Your task to perform on an android device: Search for 3d printed chess sets on Etsy. Image 0: 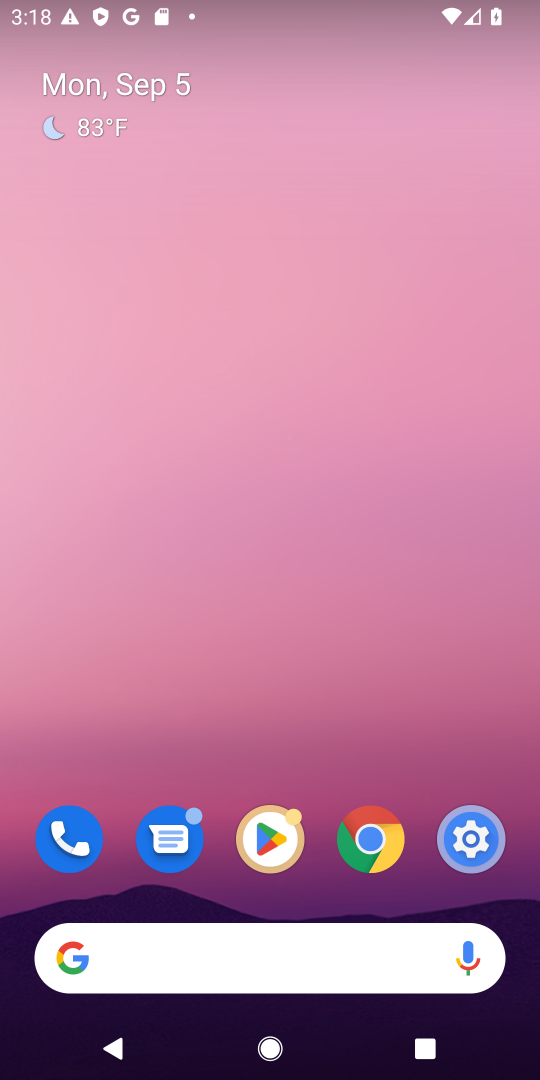
Step 0: click (187, 950)
Your task to perform on an android device: Search for 3d printed chess sets on Etsy. Image 1: 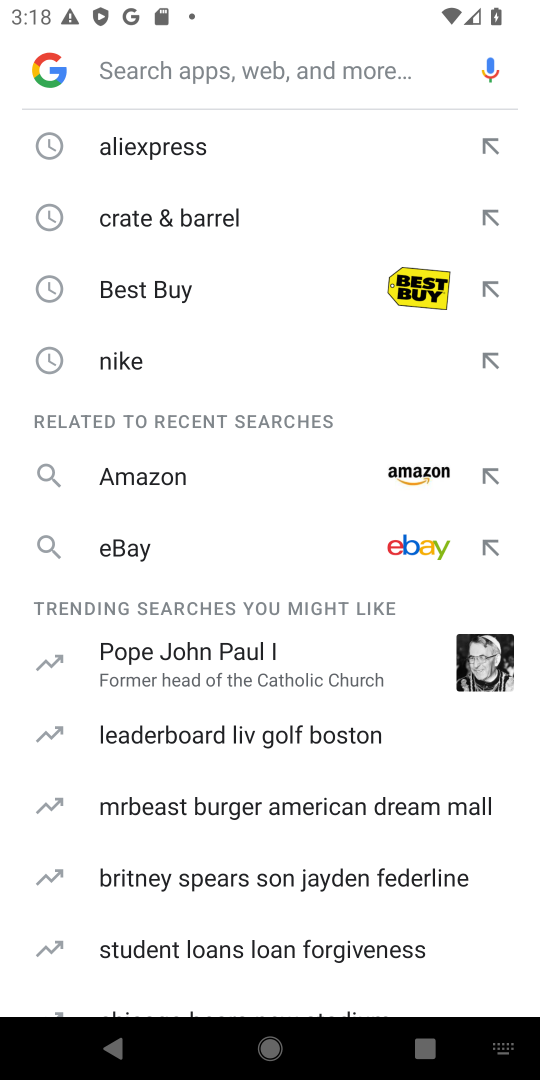
Step 1: type "etsy"
Your task to perform on an android device: Search for 3d printed chess sets on Etsy. Image 2: 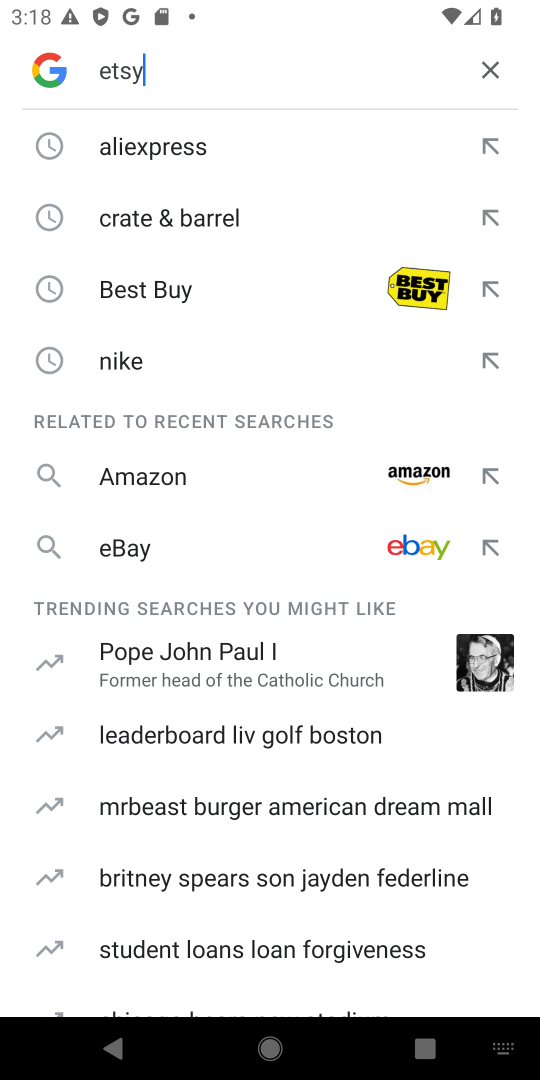
Step 2: type ""
Your task to perform on an android device: Search for 3d printed chess sets on Etsy. Image 3: 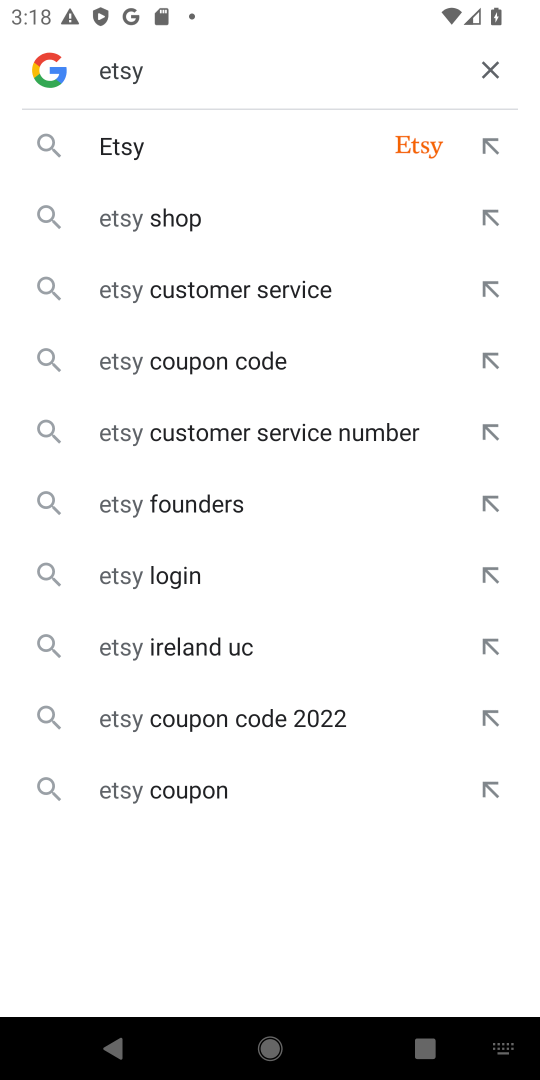
Step 3: press enter
Your task to perform on an android device: Search for 3d printed chess sets on Etsy. Image 4: 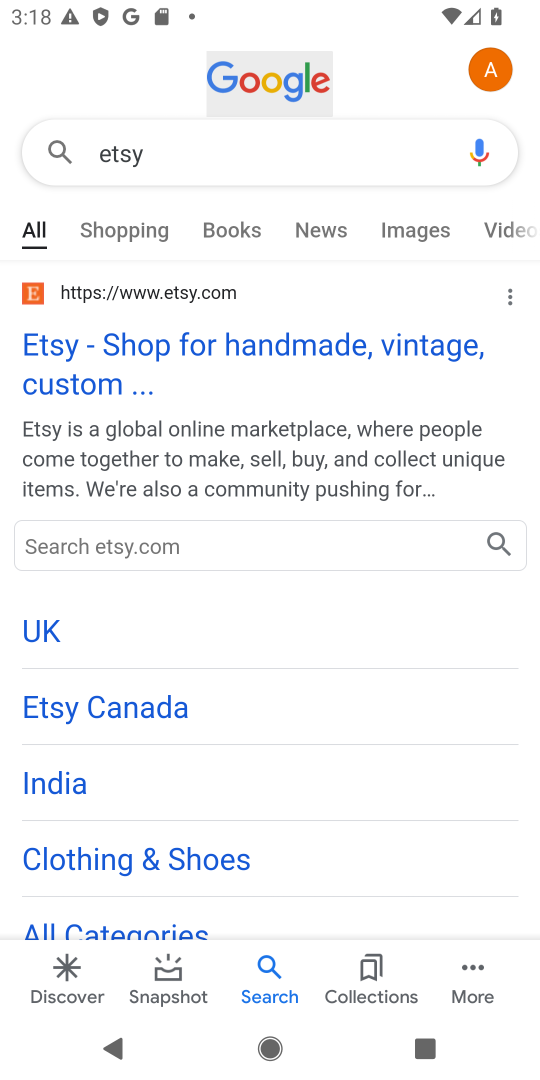
Step 4: click (112, 357)
Your task to perform on an android device: Search for 3d printed chess sets on Etsy. Image 5: 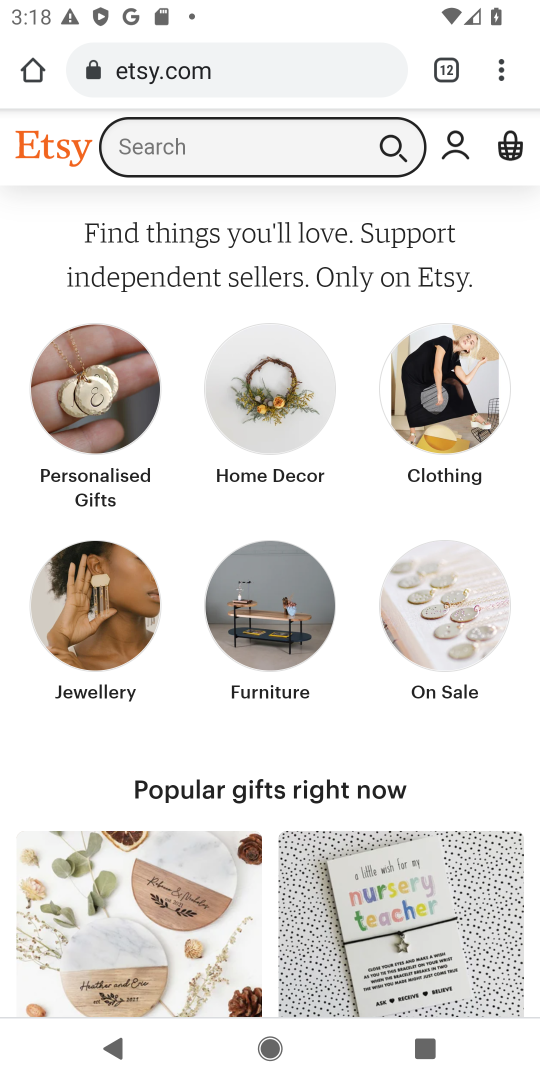
Step 5: click (209, 148)
Your task to perform on an android device: Search for 3d printed chess sets on Etsy. Image 6: 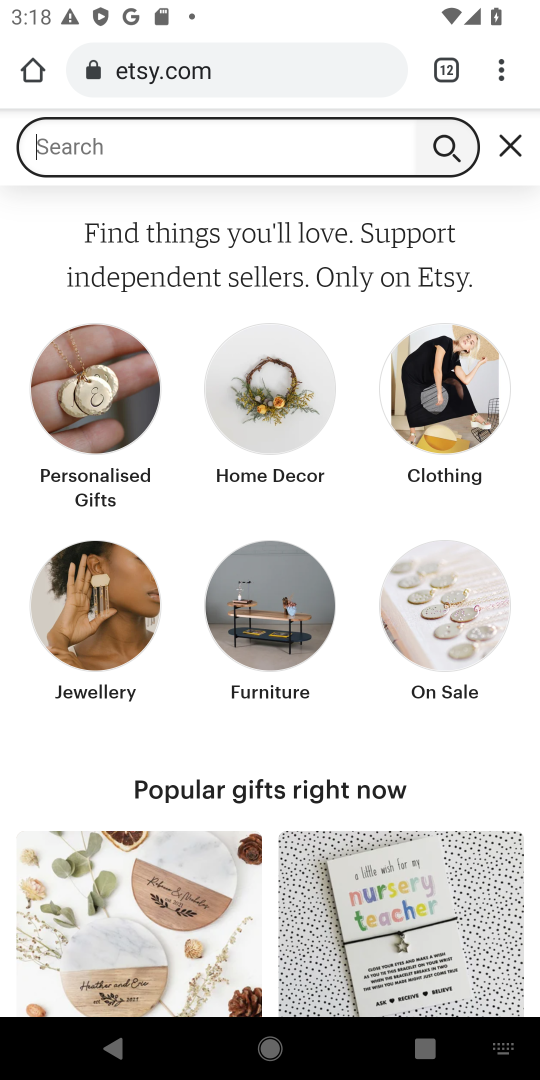
Step 6: type "3d prited chess sets"
Your task to perform on an android device: Search for 3d printed chess sets on Etsy. Image 7: 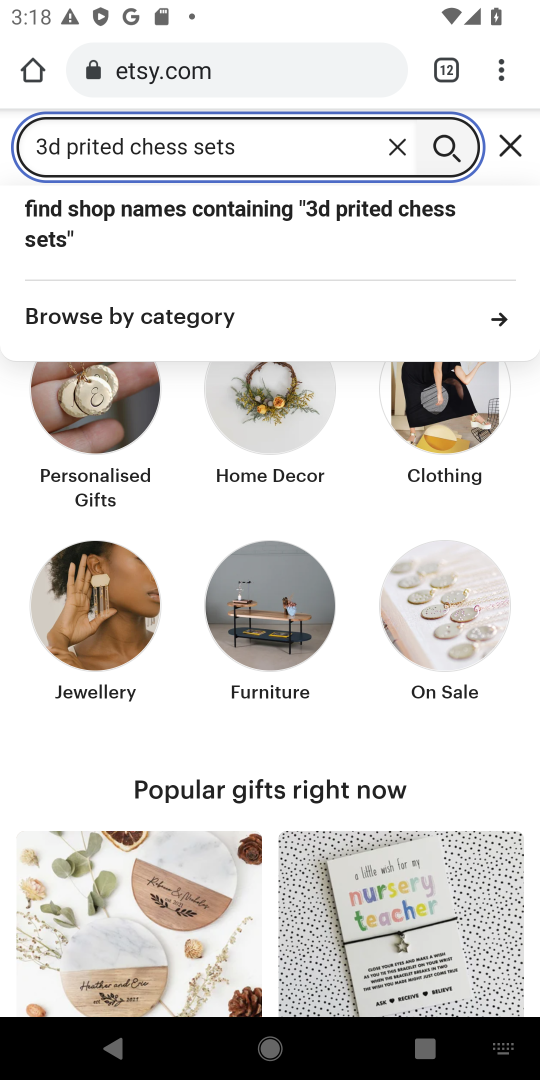
Step 7: press enter
Your task to perform on an android device: Search for 3d printed chess sets on Etsy. Image 8: 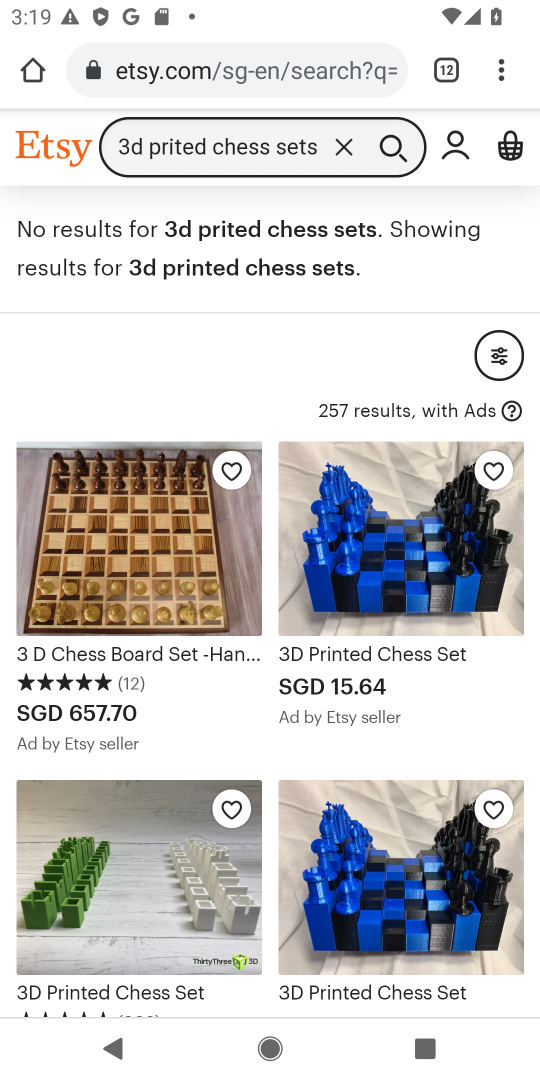
Step 8: drag from (271, 408) to (280, 224)
Your task to perform on an android device: Search for 3d printed chess sets on Etsy. Image 9: 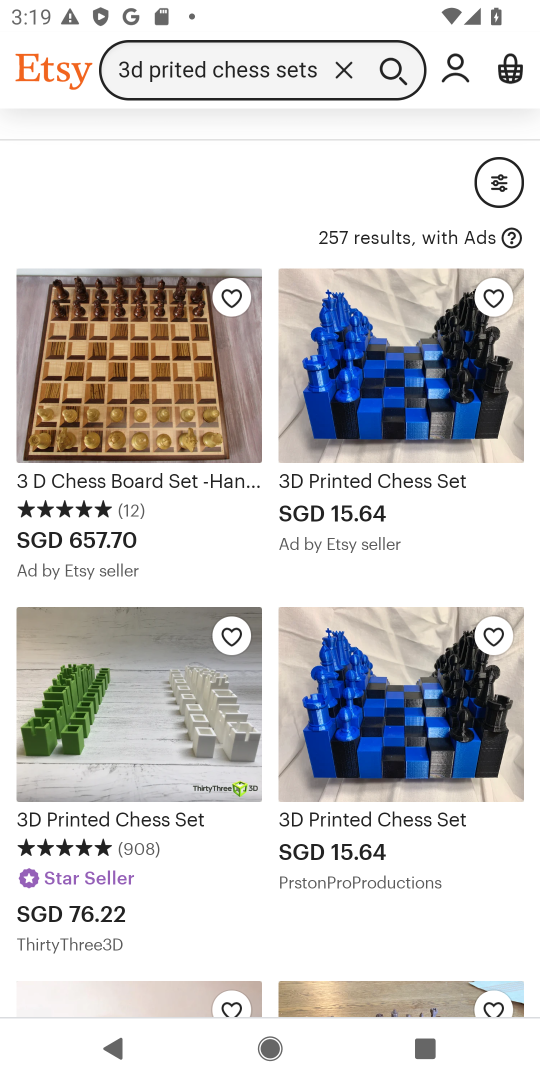
Step 9: drag from (44, 212) to (179, 0)
Your task to perform on an android device: Search for 3d printed chess sets on Etsy. Image 10: 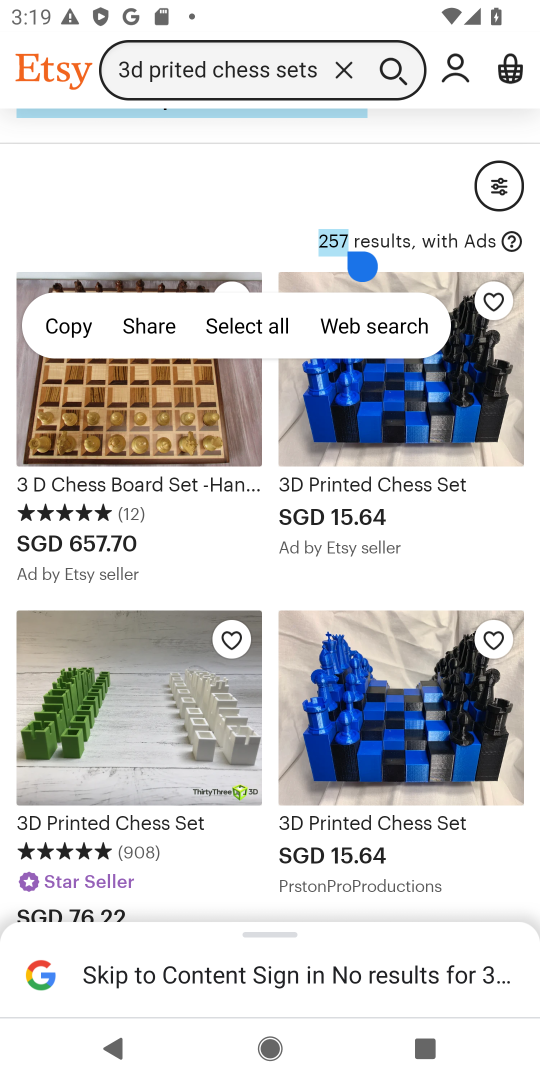
Step 10: click (196, 146)
Your task to perform on an android device: Search for 3d printed chess sets on Etsy. Image 11: 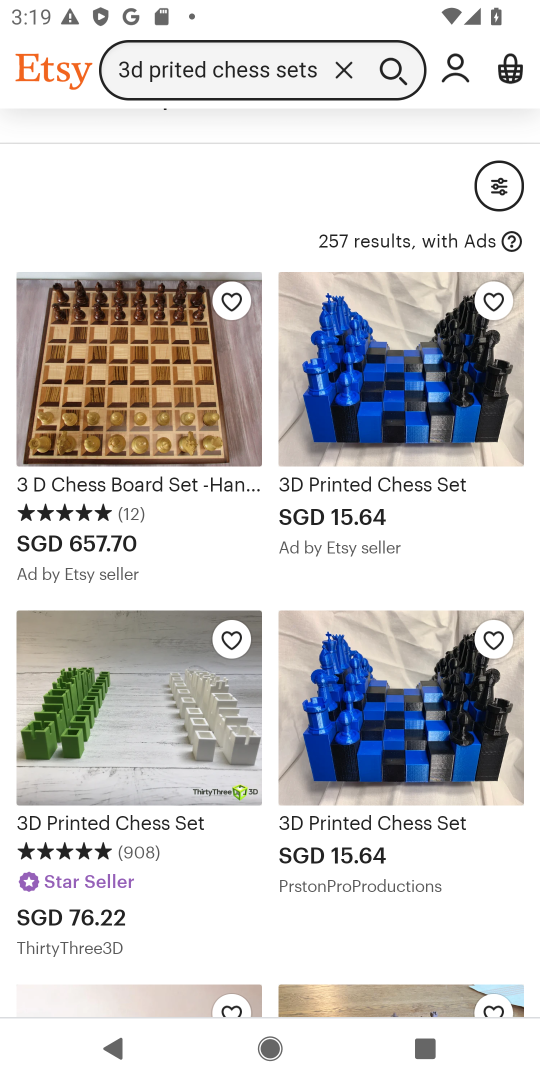
Step 11: drag from (276, 240) to (294, 132)
Your task to perform on an android device: Search for 3d printed chess sets on Etsy. Image 12: 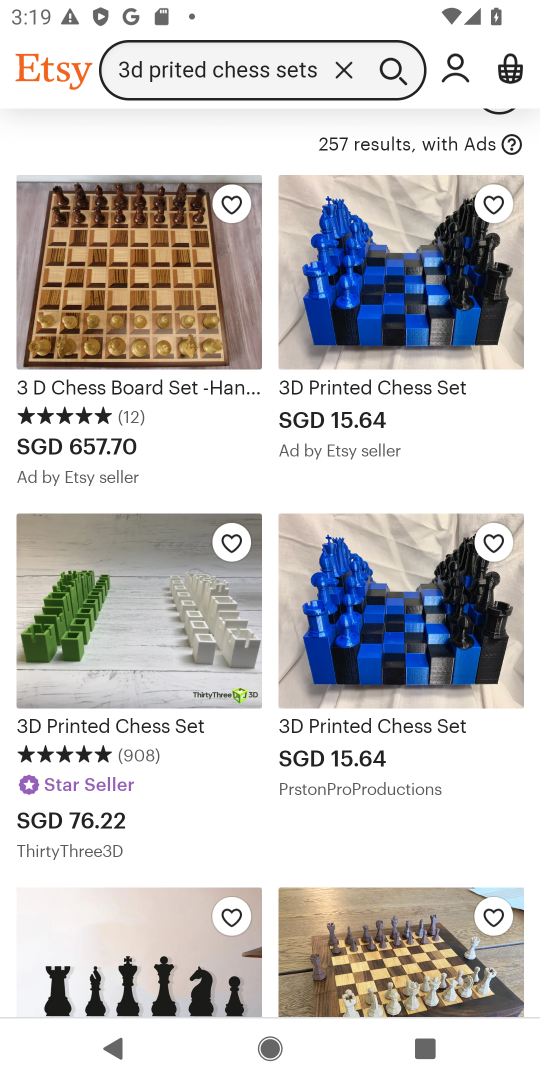
Step 12: drag from (265, 497) to (261, 120)
Your task to perform on an android device: Search for 3d printed chess sets on Etsy. Image 13: 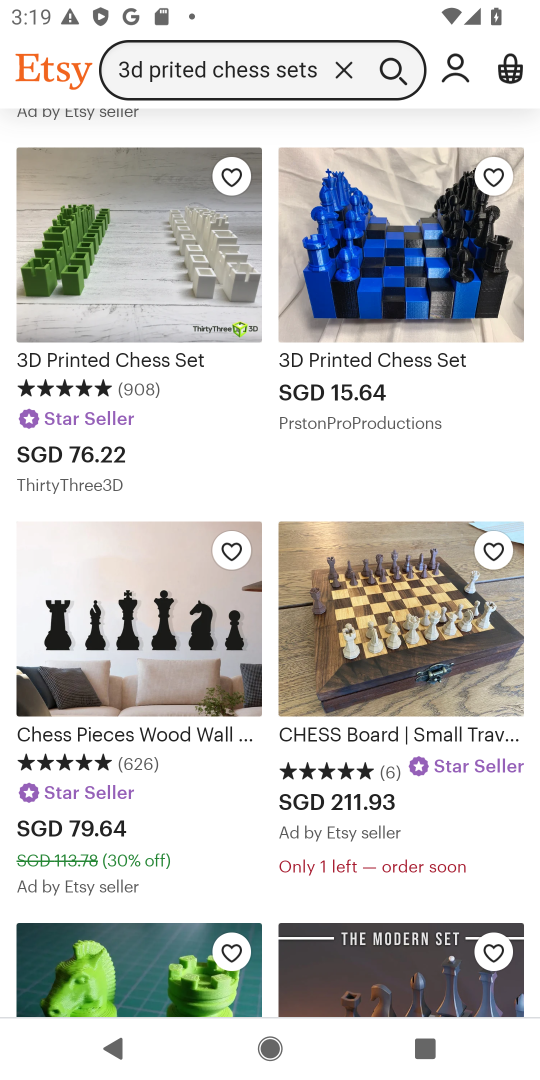
Step 13: drag from (252, 677) to (272, 413)
Your task to perform on an android device: Search for 3d printed chess sets on Etsy. Image 14: 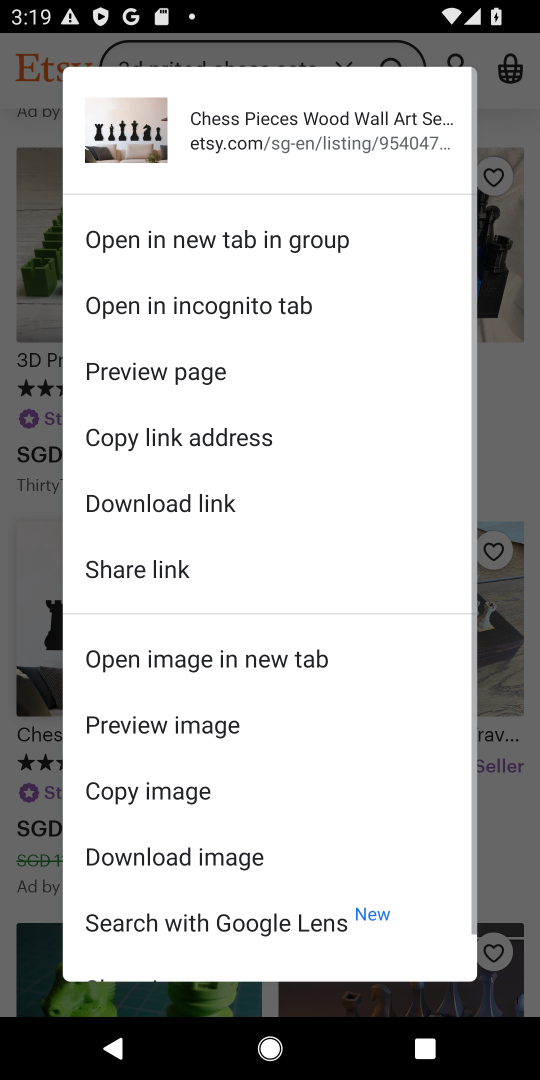
Step 14: click (510, 95)
Your task to perform on an android device: Search for 3d printed chess sets on Etsy. Image 15: 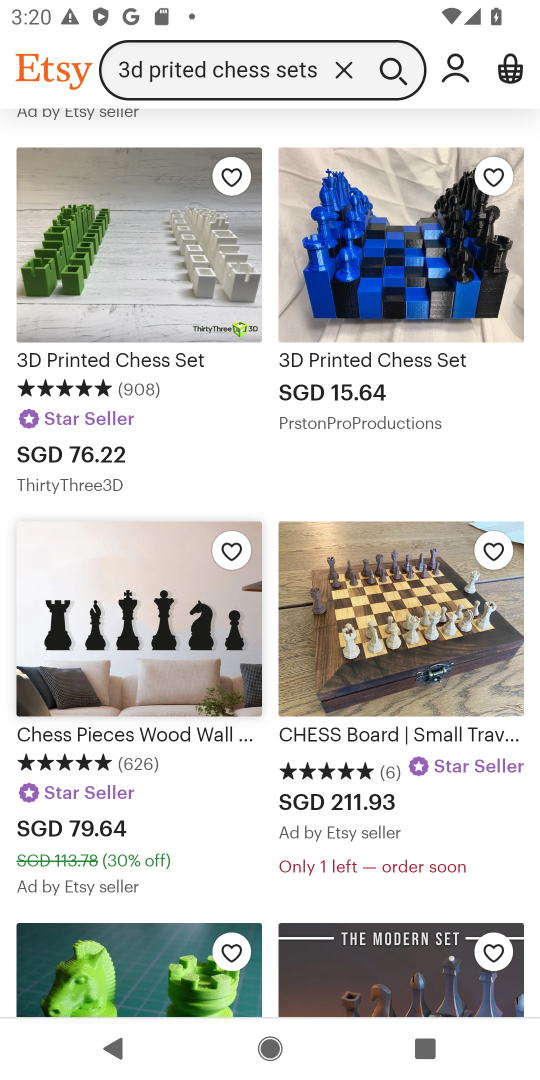
Step 15: drag from (323, 483) to (386, 438)
Your task to perform on an android device: Search for 3d printed chess sets on Etsy. Image 16: 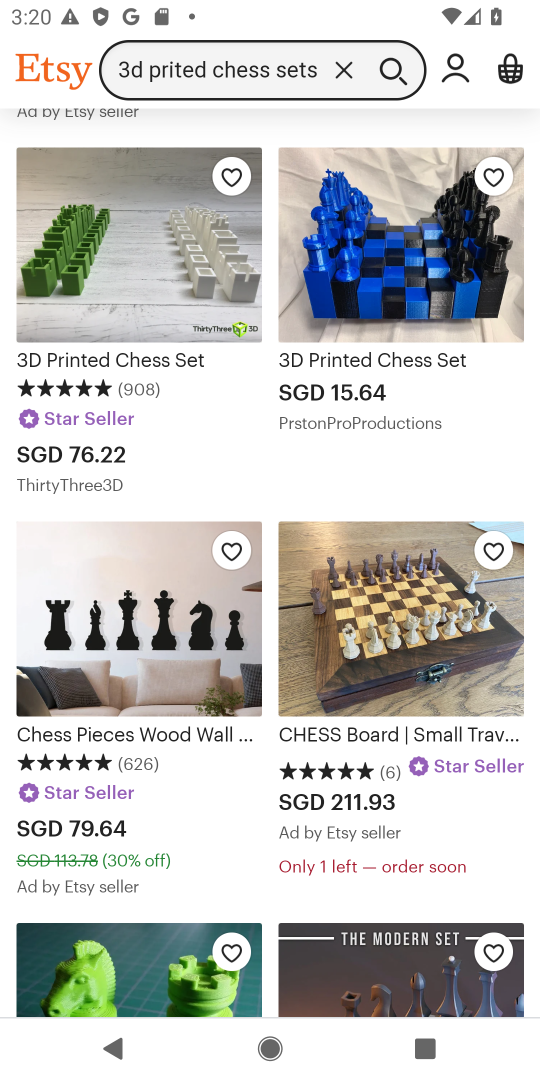
Step 16: drag from (270, 499) to (263, 425)
Your task to perform on an android device: Search for 3d printed chess sets on Etsy. Image 17: 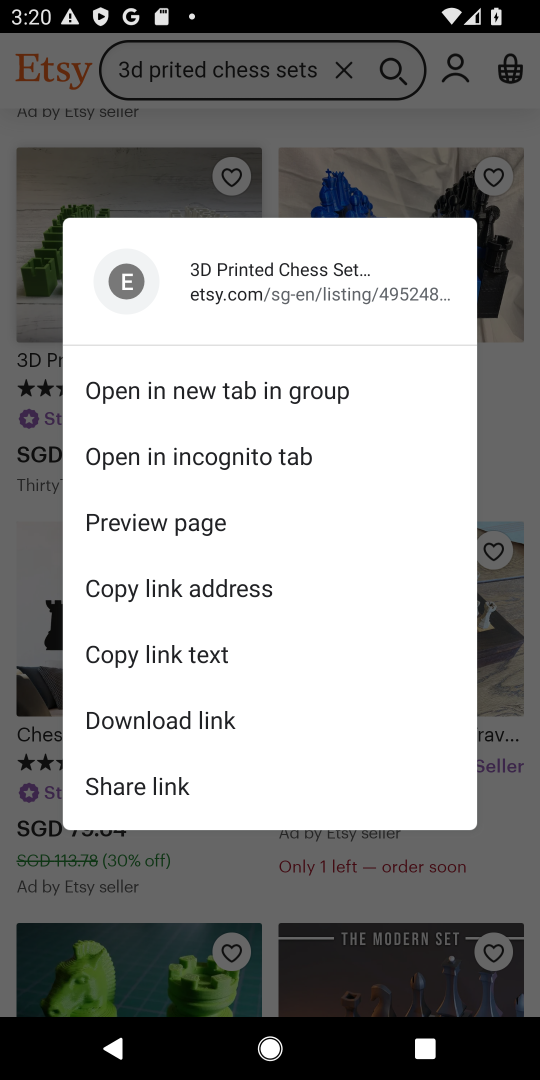
Step 17: click (517, 446)
Your task to perform on an android device: Search for 3d printed chess sets on Etsy. Image 18: 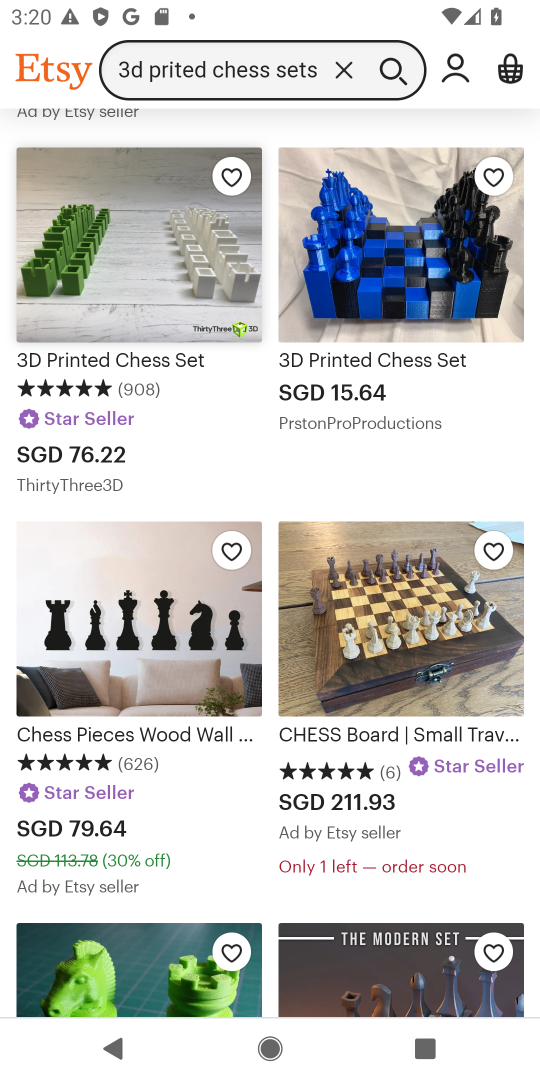
Step 18: task complete